Your task to perform on an android device: Do I have any events tomorrow? Image 0: 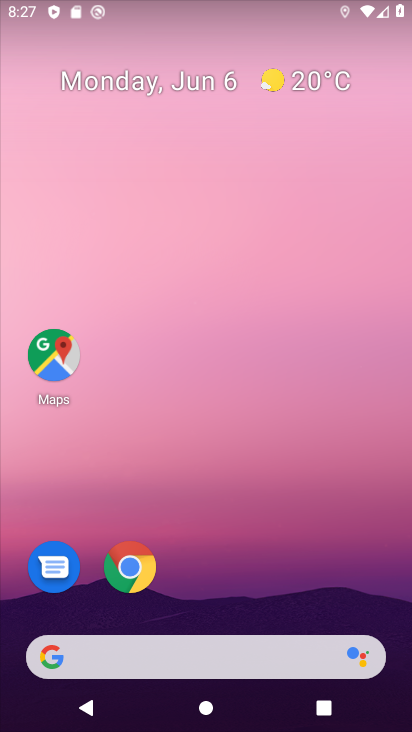
Step 0: click (192, 89)
Your task to perform on an android device: Do I have any events tomorrow? Image 1: 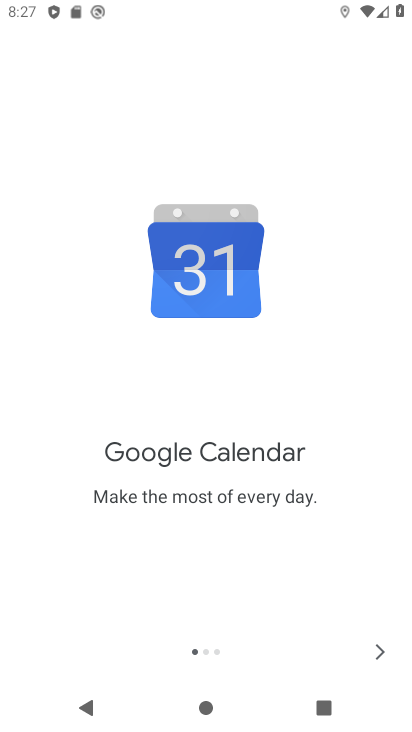
Step 1: click (383, 653)
Your task to perform on an android device: Do I have any events tomorrow? Image 2: 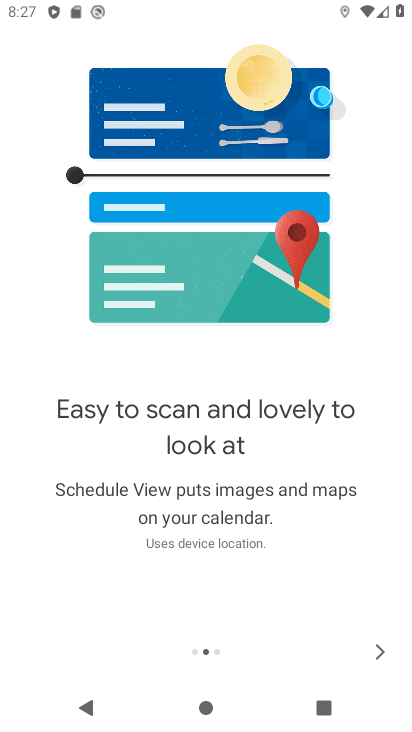
Step 2: click (383, 653)
Your task to perform on an android device: Do I have any events tomorrow? Image 3: 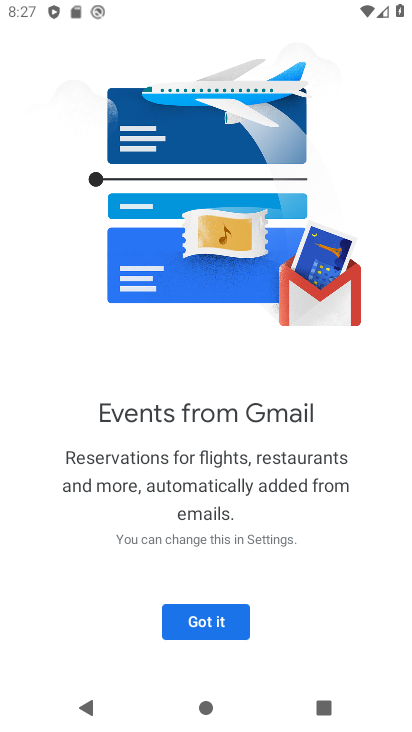
Step 3: click (166, 618)
Your task to perform on an android device: Do I have any events tomorrow? Image 4: 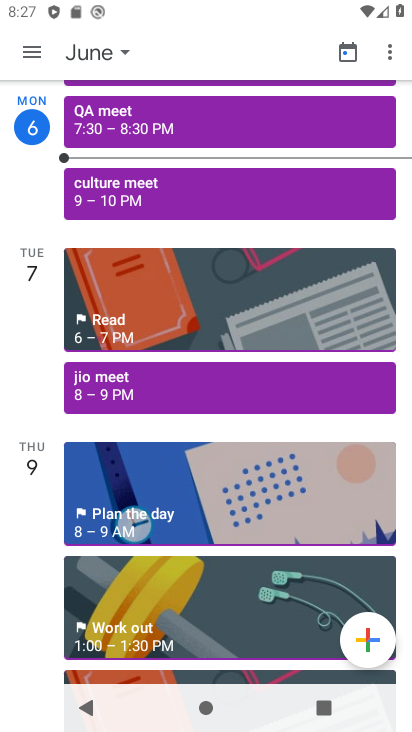
Step 4: click (113, 49)
Your task to perform on an android device: Do I have any events tomorrow? Image 5: 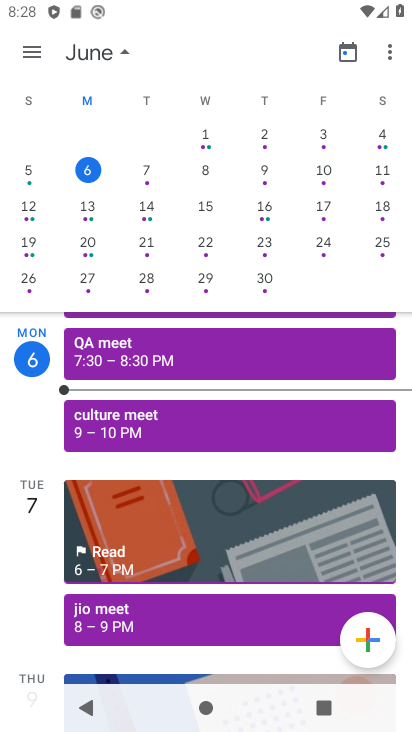
Step 5: click (143, 170)
Your task to perform on an android device: Do I have any events tomorrow? Image 6: 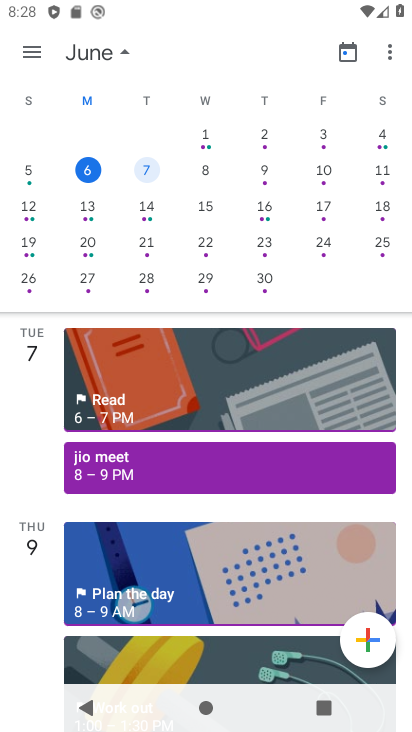
Step 6: task complete